Your task to perform on an android device: delete browsing data in the chrome app Image 0: 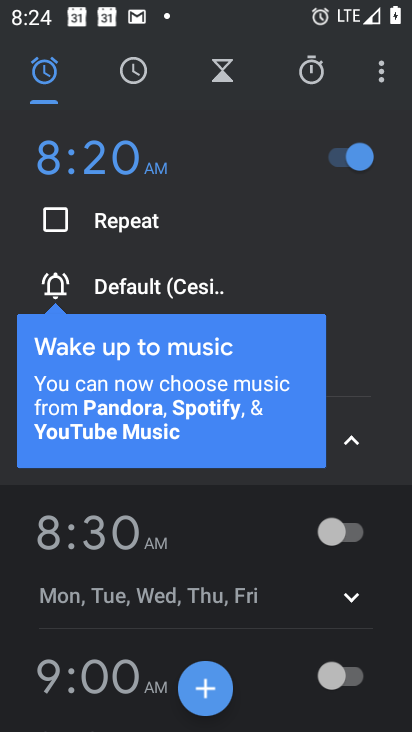
Step 0: press home button
Your task to perform on an android device: delete browsing data in the chrome app Image 1: 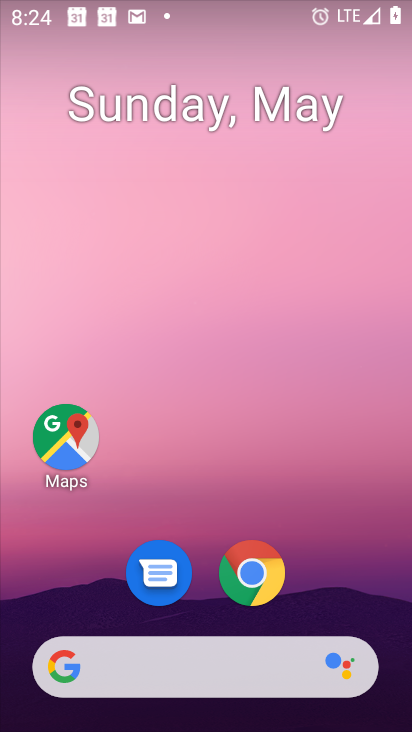
Step 1: click (244, 573)
Your task to perform on an android device: delete browsing data in the chrome app Image 2: 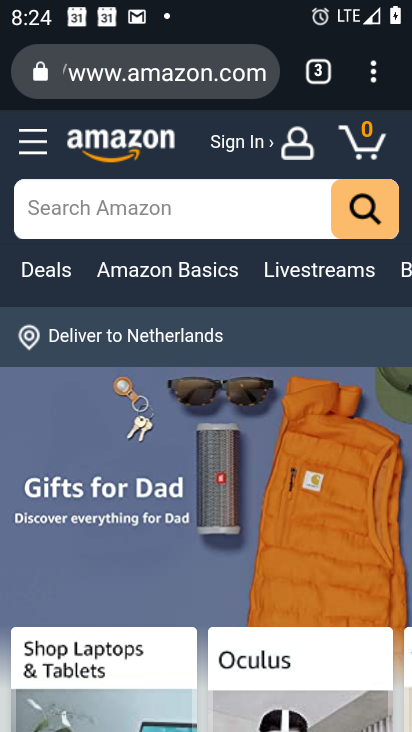
Step 2: click (376, 90)
Your task to perform on an android device: delete browsing data in the chrome app Image 3: 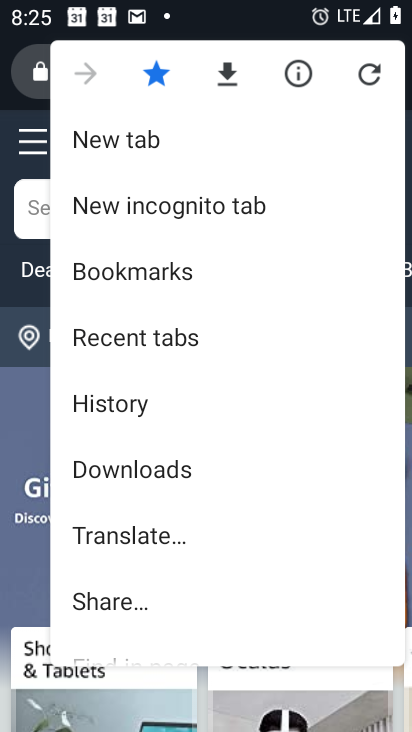
Step 3: click (143, 402)
Your task to perform on an android device: delete browsing data in the chrome app Image 4: 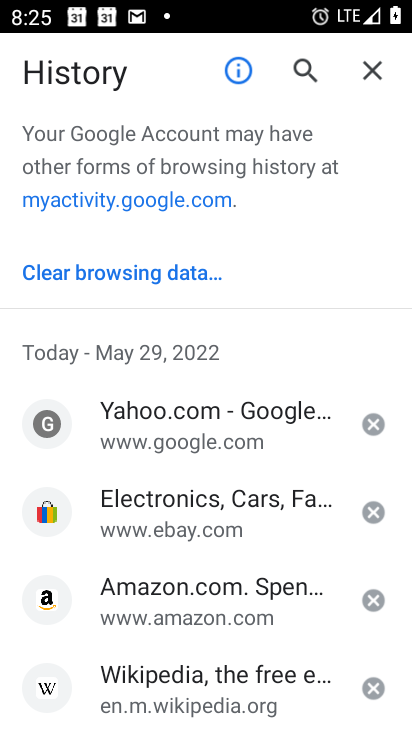
Step 4: click (143, 275)
Your task to perform on an android device: delete browsing data in the chrome app Image 5: 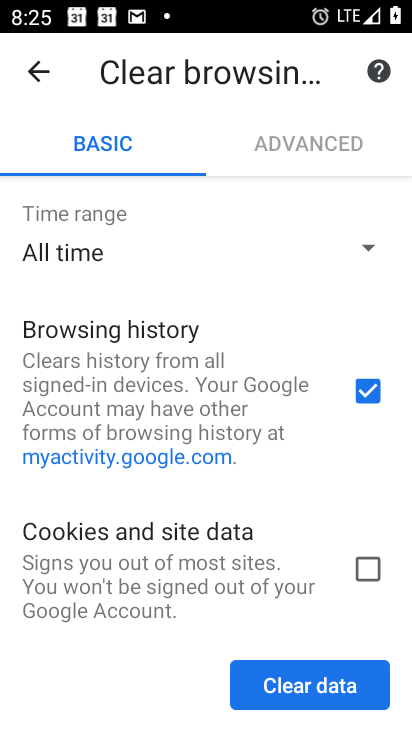
Step 5: click (368, 562)
Your task to perform on an android device: delete browsing data in the chrome app Image 6: 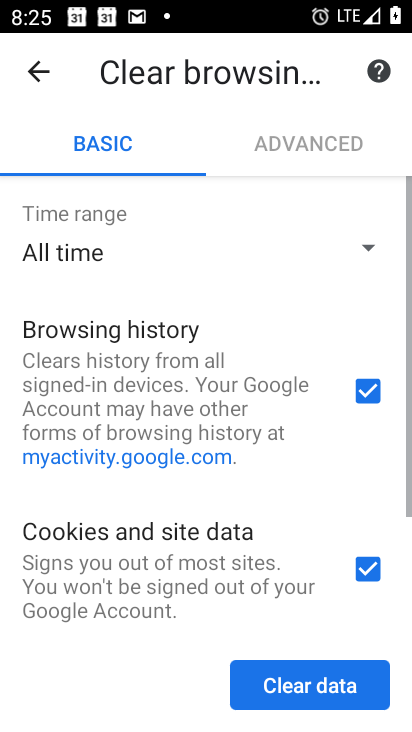
Step 6: drag from (305, 571) to (289, 280)
Your task to perform on an android device: delete browsing data in the chrome app Image 7: 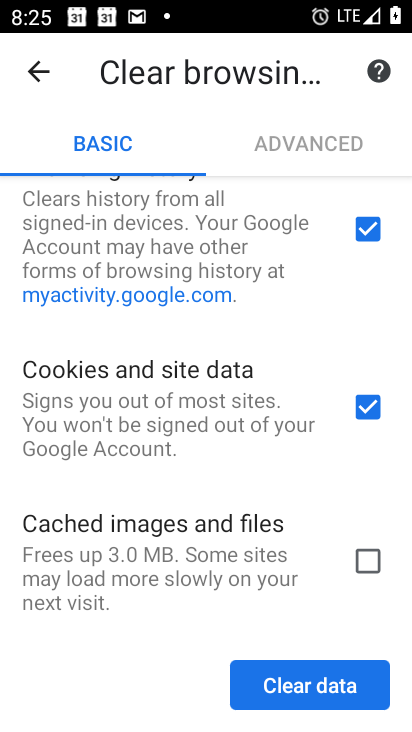
Step 7: click (369, 557)
Your task to perform on an android device: delete browsing data in the chrome app Image 8: 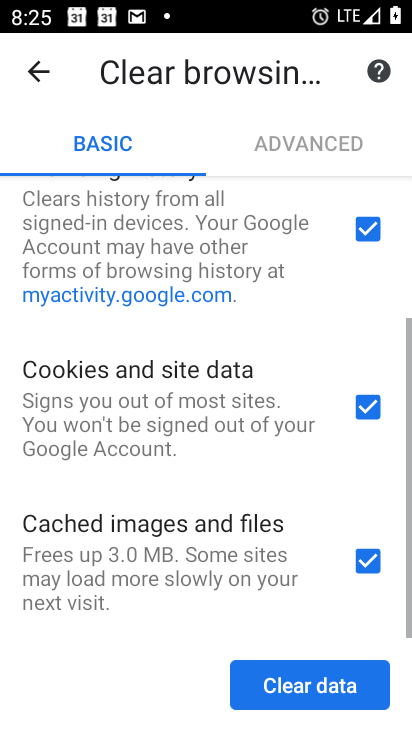
Step 8: click (349, 685)
Your task to perform on an android device: delete browsing data in the chrome app Image 9: 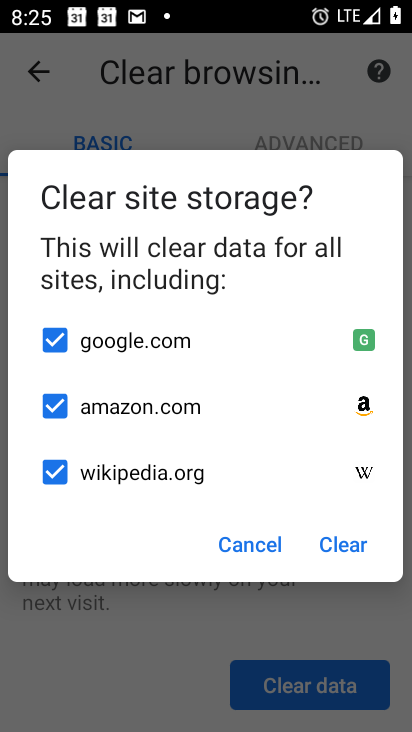
Step 9: click (342, 538)
Your task to perform on an android device: delete browsing data in the chrome app Image 10: 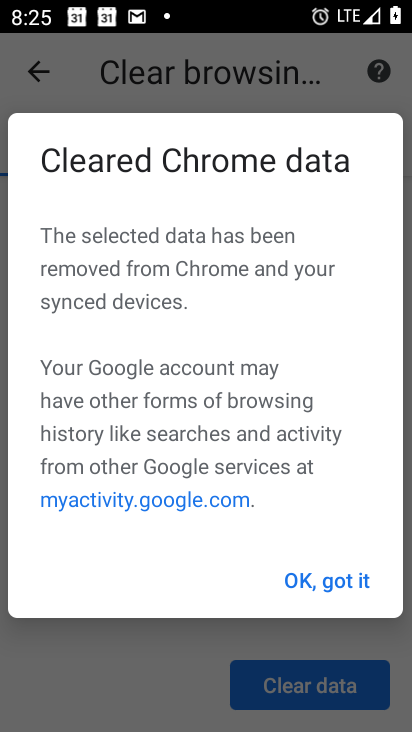
Step 10: click (350, 573)
Your task to perform on an android device: delete browsing data in the chrome app Image 11: 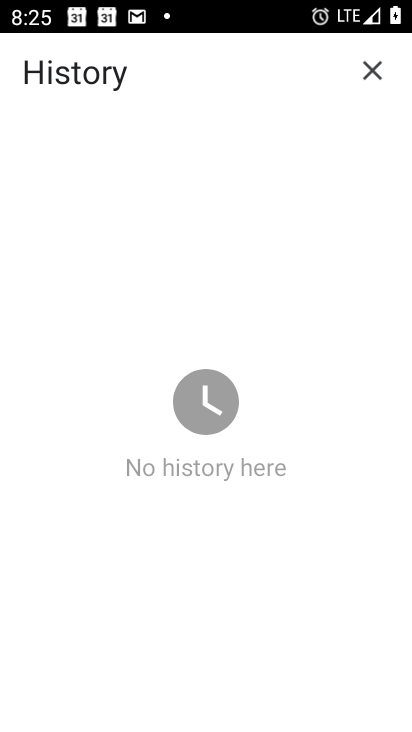
Step 11: task complete